Your task to perform on an android device: Show me recent news Image 0: 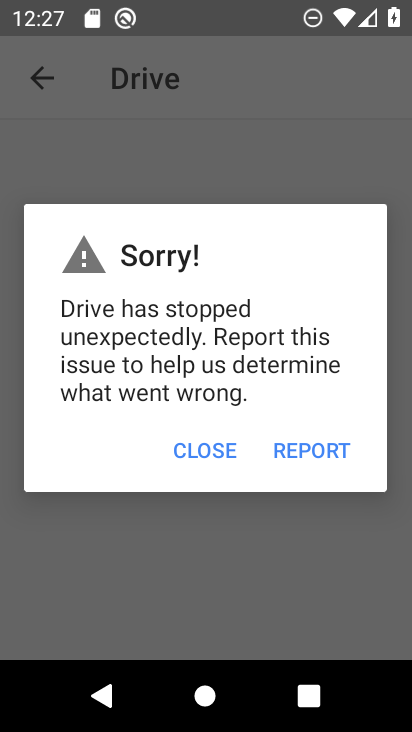
Step 0: press back button
Your task to perform on an android device: Show me recent news Image 1: 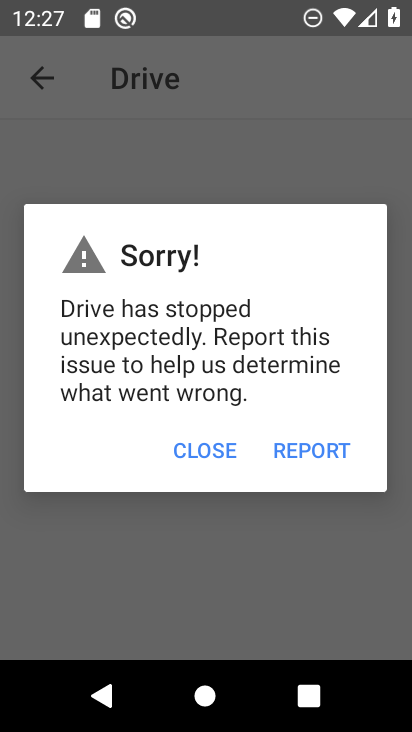
Step 1: press home button
Your task to perform on an android device: Show me recent news Image 2: 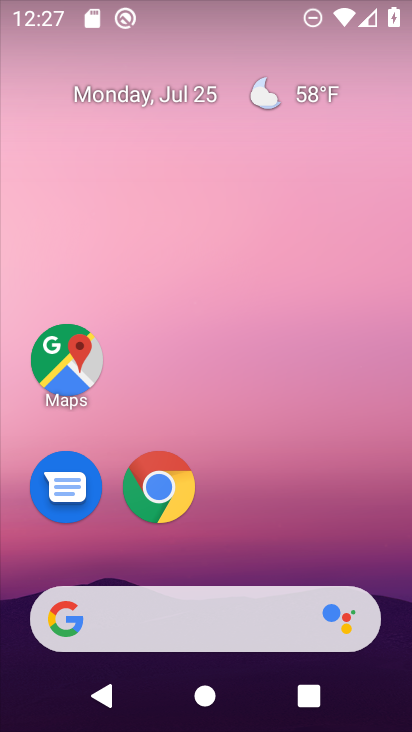
Step 2: click (156, 597)
Your task to perform on an android device: Show me recent news Image 3: 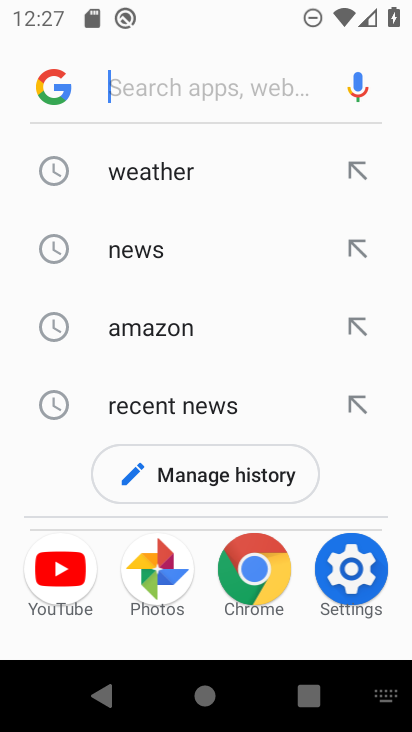
Step 3: click (154, 393)
Your task to perform on an android device: Show me recent news Image 4: 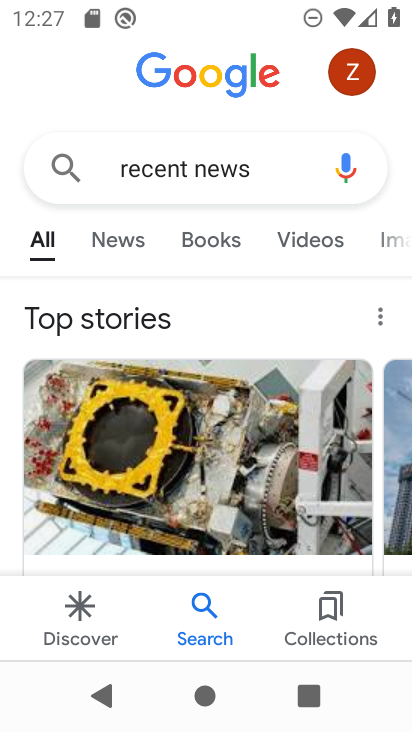
Step 4: task complete